Your task to perform on an android device: install app "Booking.com: Hotels and more" Image 0: 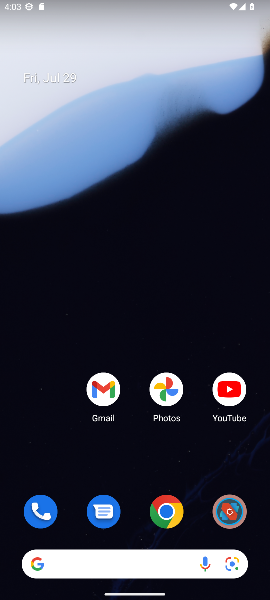
Step 0: drag from (26, 579) to (161, 160)
Your task to perform on an android device: install app "Booking.com: Hotels and more" Image 1: 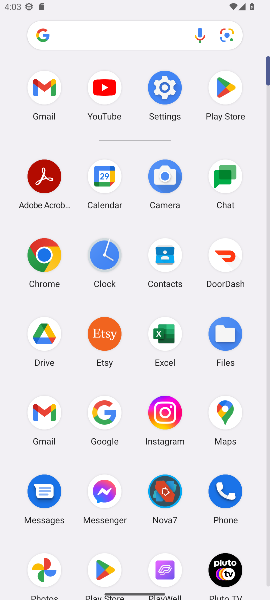
Step 1: click (104, 574)
Your task to perform on an android device: install app "Booking.com: Hotels and more" Image 2: 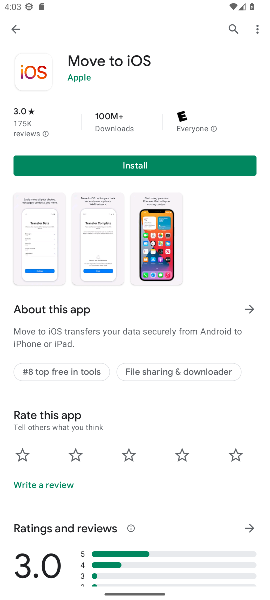
Step 2: click (14, 29)
Your task to perform on an android device: install app "Booking.com: Hotels and more" Image 3: 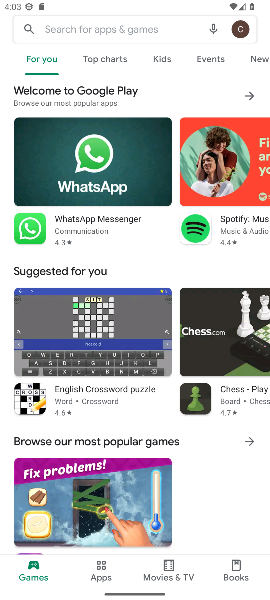
Step 3: click (92, 22)
Your task to perform on an android device: install app "Booking.com: Hotels and more" Image 4: 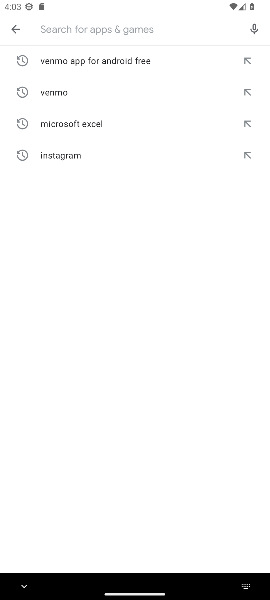
Step 4: type "Booking.com: Hotels and more"
Your task to perform on an android device: install app "Booking.com: Hotels and more" Image 5: 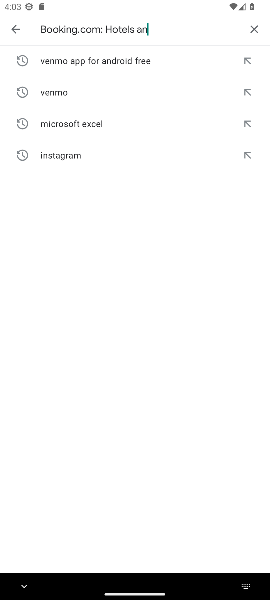
Step 5: type ""
Your task to perform on an android device: install app "Booking.com: Hotels and more" Image 6: 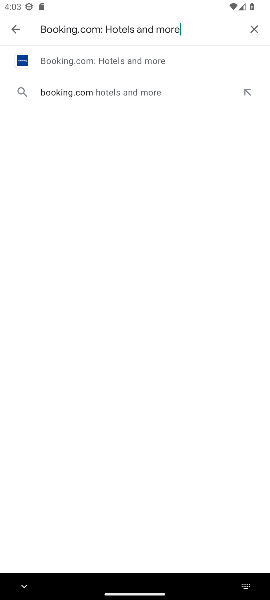
Step 6: click (117, 70)
Your task to perform on an android device: install app "Booking.com: Hotels and more" Image 7: 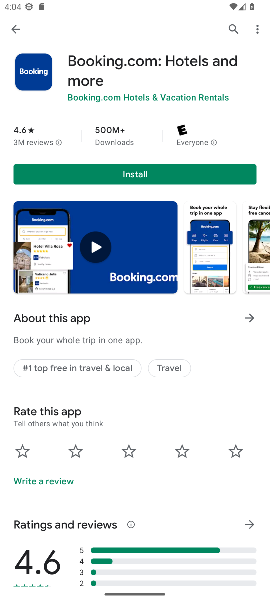
Step 7: click (162, 172)
Your task to perform on an android device: install app "Booking.com: Hotels and more" Image 8: 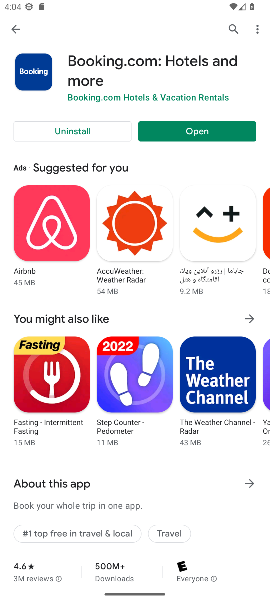
Step 8: task complete